Your task to perform on an android device: see creations saved in the google photos Image 0: 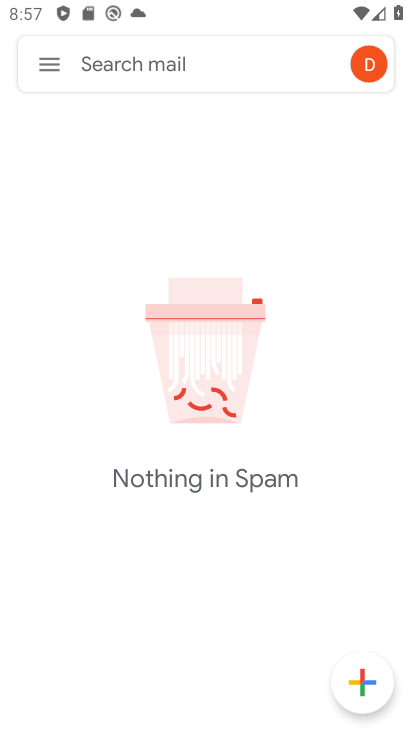
Step 0: press home button
Your task to perform on an android device: see creations saved in the google photos Image 1: 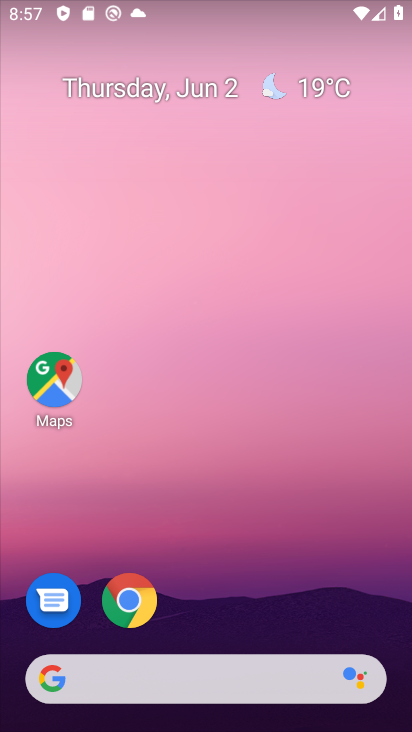
Step 1: drag from (190, 605) to (204, 205)
Your task to perform on an android device: see creations saved in the google photos Image 2: 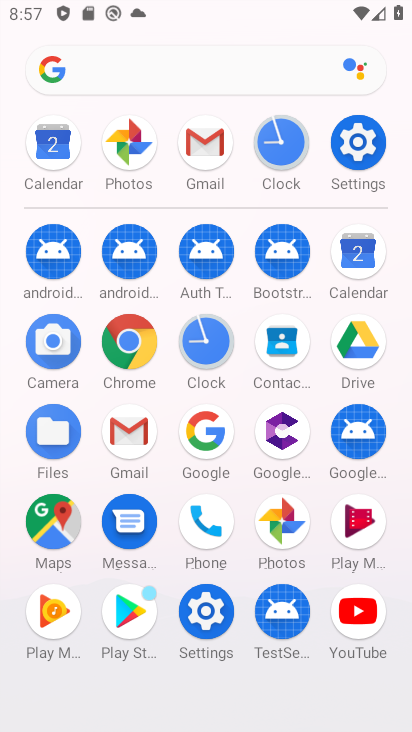
Step 2: click (285, 498)
Your task to perform on an android device: see creations saved in the google photos Image 3: 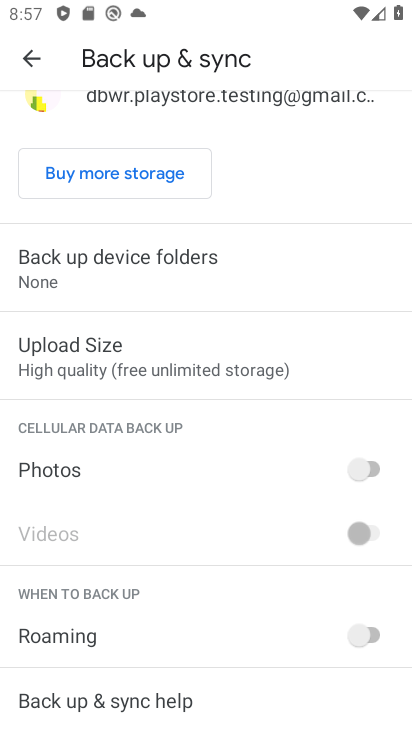
Step 3: click (37, 56)
Your task to perform on an android device: see creations saved in the google photos Image 4: 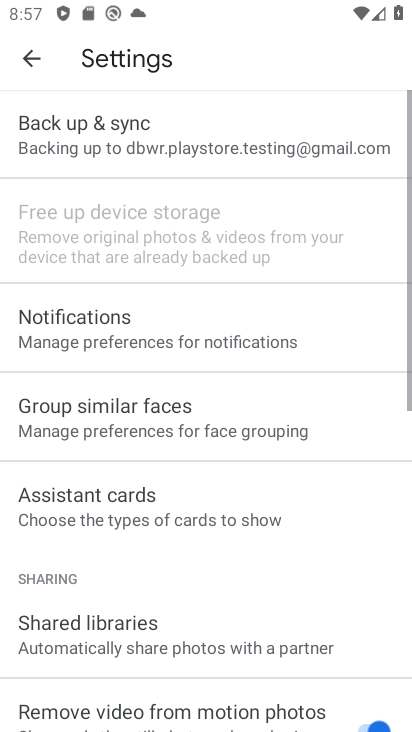
Step 4: click (37, 56)
Your task to perform on an android device: see creations saved in the google photos Image 5: 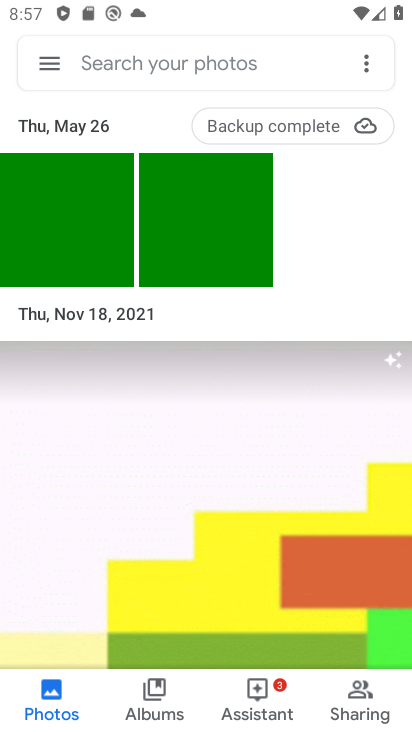
Step 5: click (169, 69)
Your task to perform on an android device: see creations saved in the google photos Image 6: 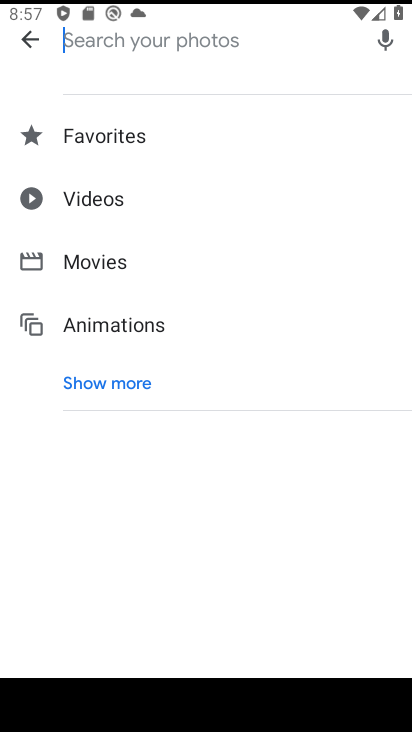
Step 6: click (132, 382)
Your task to perform on an android device: see creations saved in the google photos Image 7: 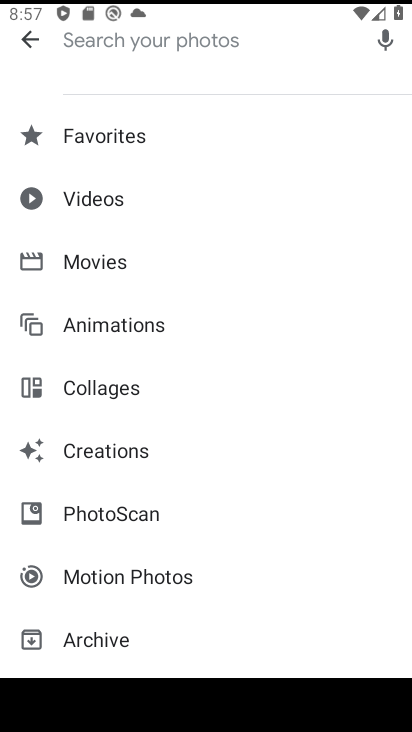
Step 7: click (126, 448)
Your task to perform on an android device: see creations saved in the google photos Image 8: 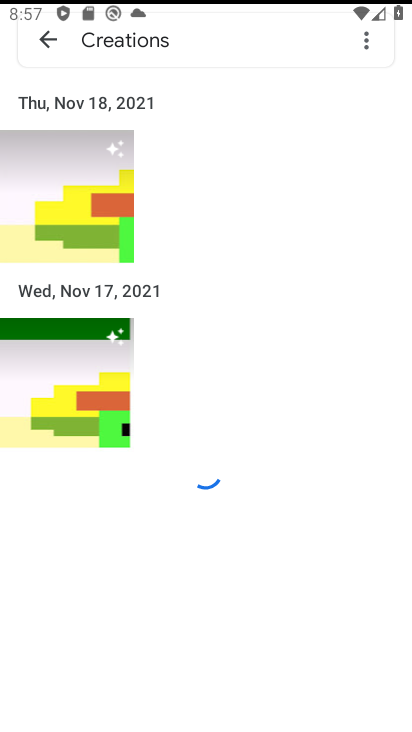
Step 8: task complete